Your task to perform on an android device: turn off translation in the chrome app Image 0: 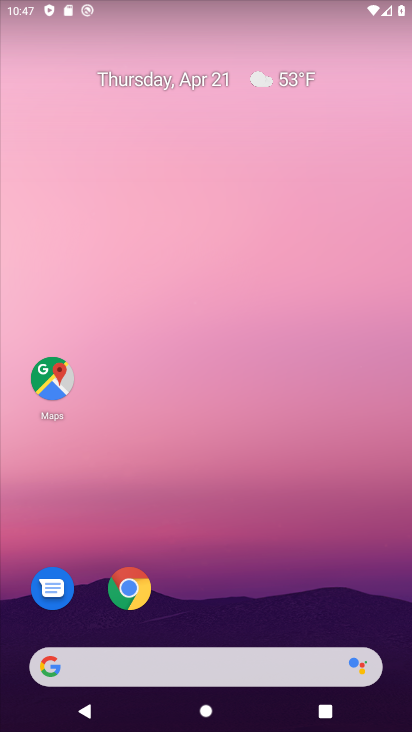
Step 0: click (139, 583)
Your task to perform on an android device: turn off translation in the chrome app Image 1: 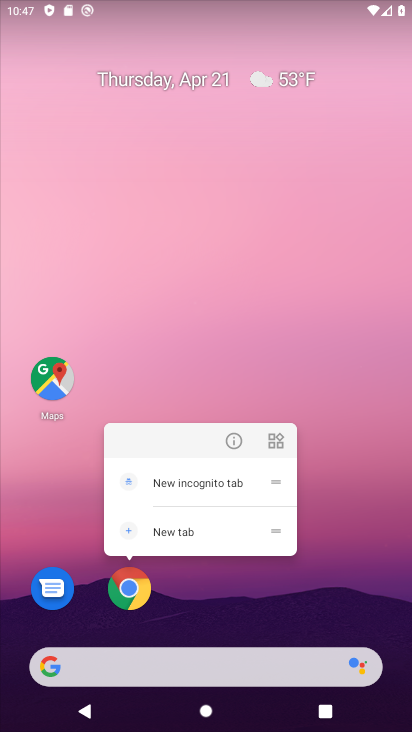
Step 1: click (142, 588)
Your task to perform on an android device: turn off translation in the chrome app Image 2: 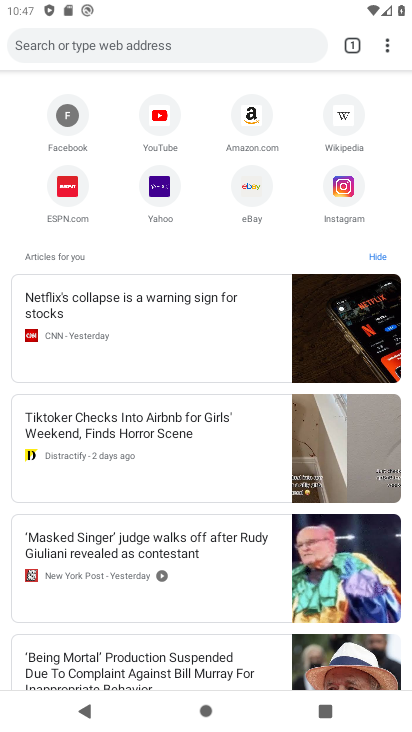
Step 2: click (383, 48)
Your task to perform on an android device: turn off translation in the chrome app Image 3: 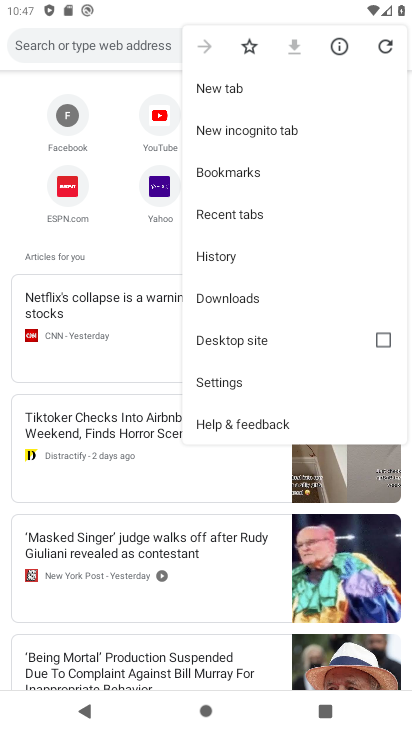
Step 3: click (246, 377)
Your task to perform on an android device: turn off translation in the chrome app Image 4: 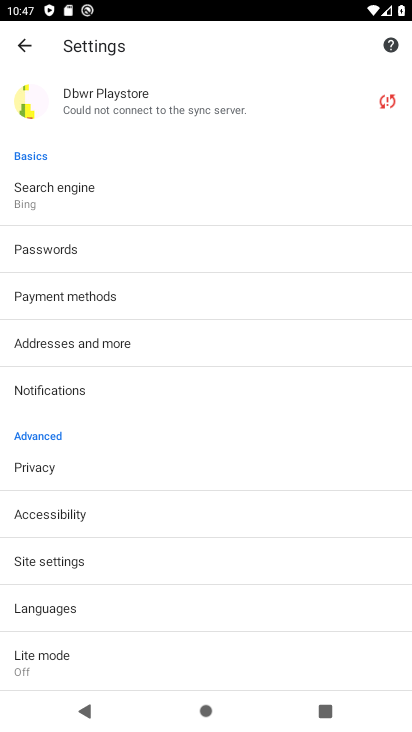
Step 4: click (63, 607)
Your task to perform on an android device: turn off translation in the chrome app Image 5: 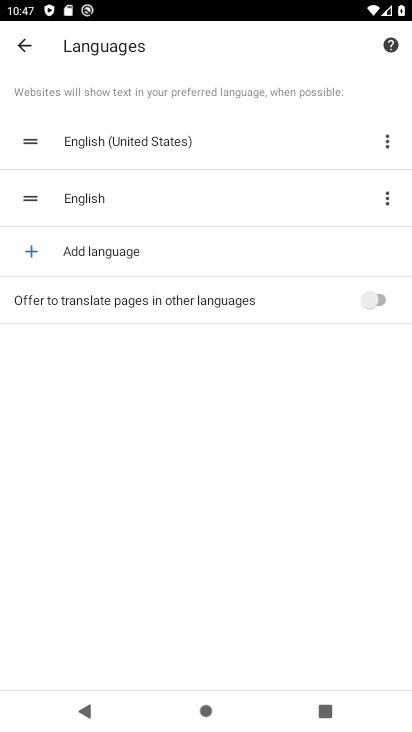
Step 5: task complete